Your task to perform on an android device: allow cookies in the chrome app Image 0: 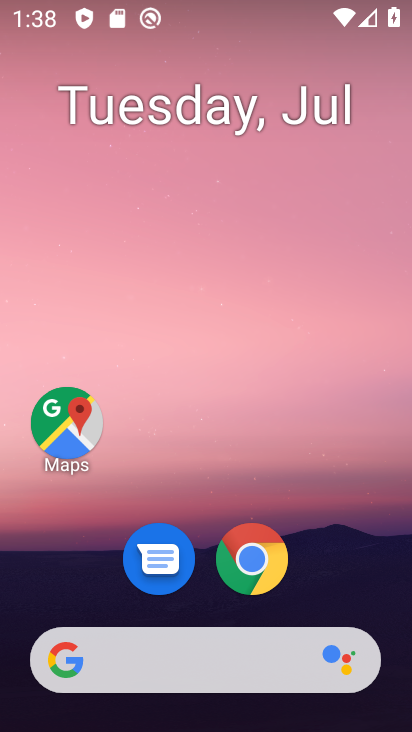
Step 0: drag from (348, 555) to (390, 82)
Your task to perform on an android device: allow cookies in the chrome app Image 1: 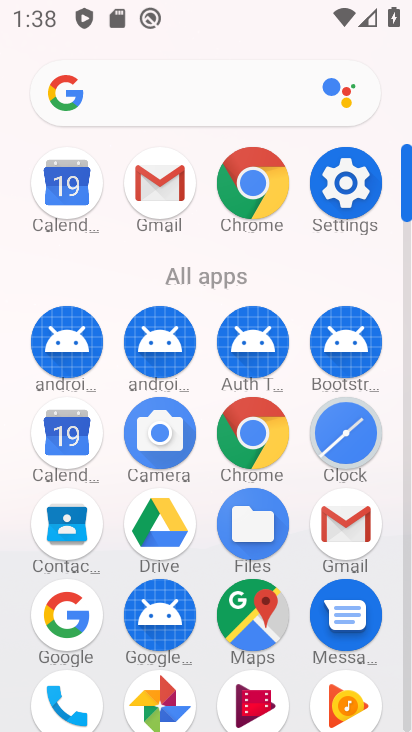
Step 1: click (251, 439)
Your task to perform on an android device: allow cookies in the chrome app Image 2: 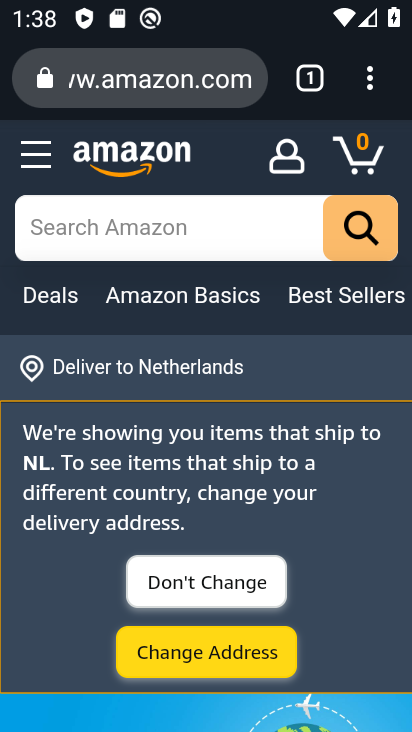
Step 2: click (369, 90)
Your task to perform on an android device: allow cookies in the chrome app Image 3: 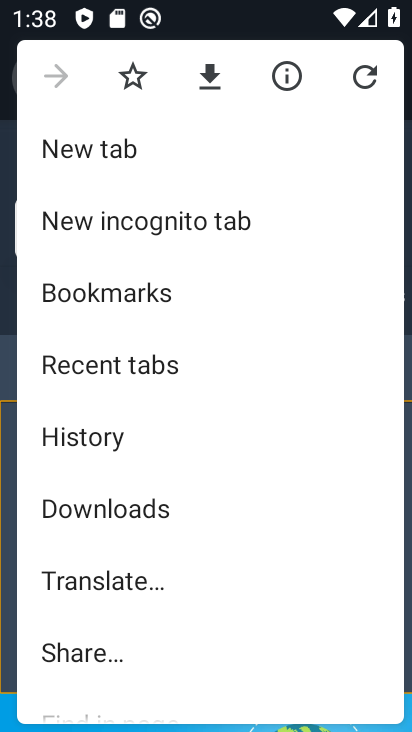
Step 3: drag from (307, 457) to (303, 364)
Your task to perform on an android device: allow cookies in the chrome app Image 4: 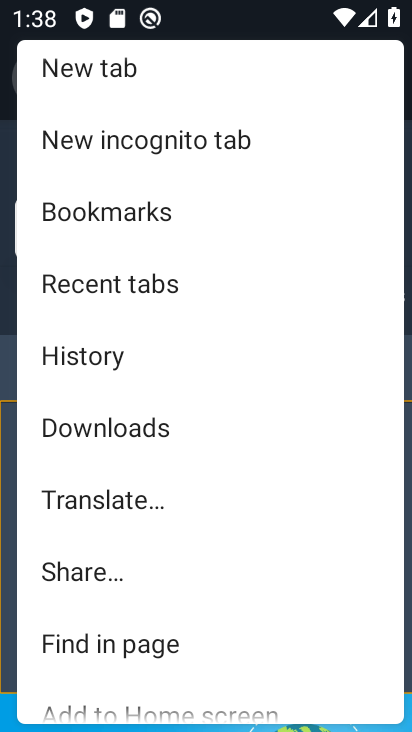
Step 4: drag from (303, 515) to (301, 394)
Your task to perform on an android device: allow cookies in the chrome app Image 5: 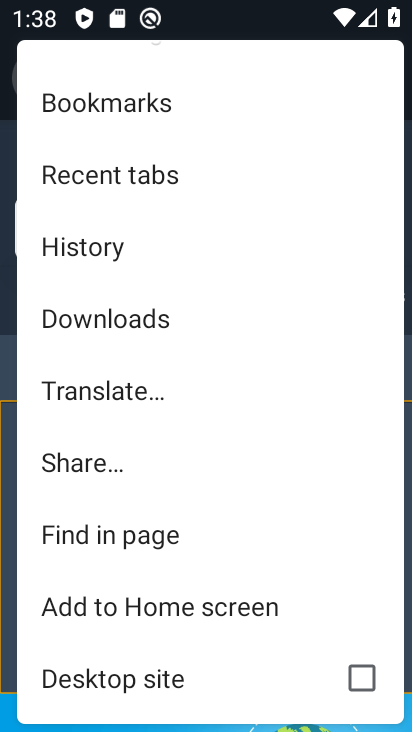
Step 5: drag from (303, 572) to (314, 436)
Your task to perform on an android device: allow cookies in the chrome app Image 6: 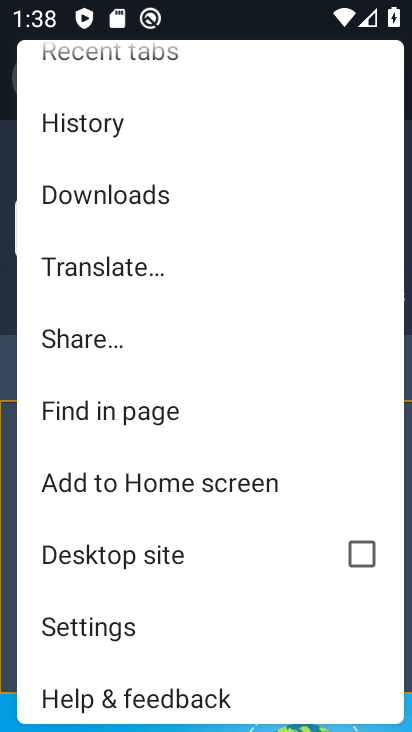
Step 6: drag from (300, 623) to (303, 495)
Your task to perform on an android device: allow cookies in the chrome app Image 7: 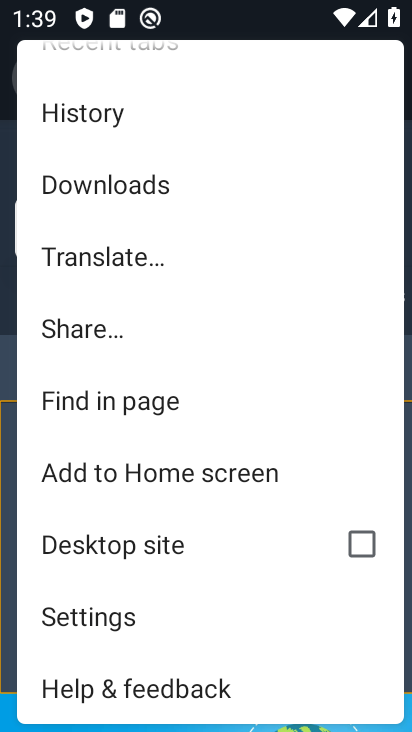
Step 7: click (172, 618)
Your task to perform on an android device: allow cookies in the chrome app Image 8: 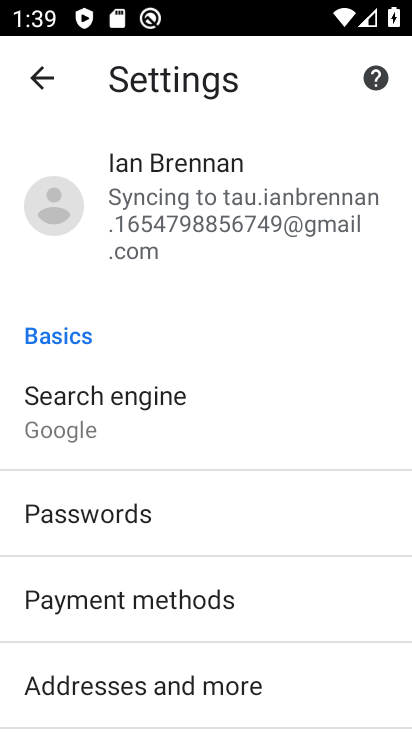
Step 8: drag from (311, 578) to (322, 397)
Your task to perform on an android device: allow cookies in the chrome app Image 9: 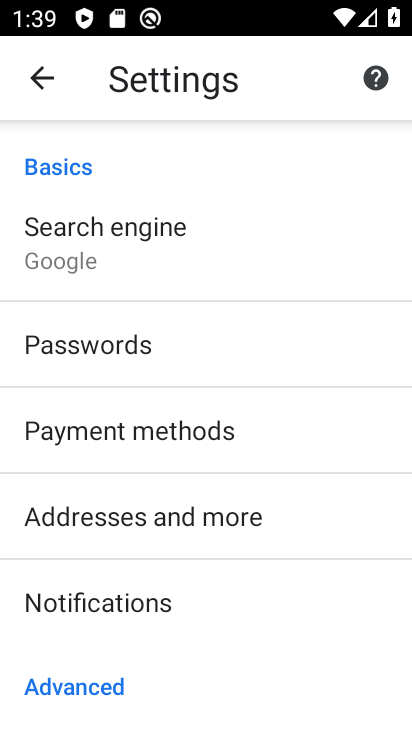
Step 9: drag from (324, 565) to (332, 396)
Your task to perform on an android device: allow cookies in the chrome app Image 10: 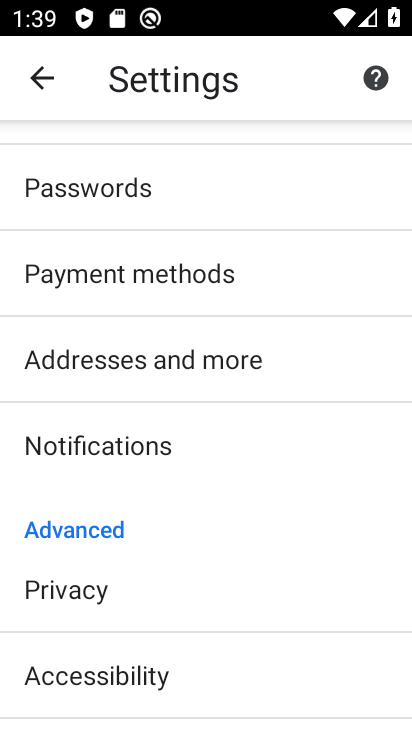
Step 10: drag from (330, 535) to (333, 377)
Your task to perform on an android device: allow cookies in the chrome app Image 11: 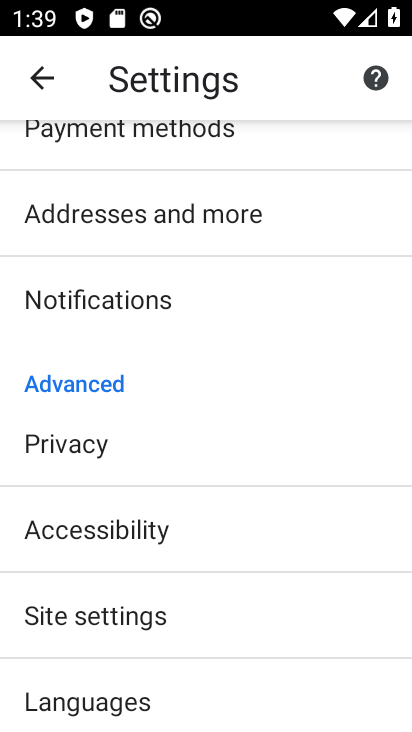
Step 11: drag from (327, 604) to (332, 390)
Your task to perform on an android device: allow cookies in the chrome app Image 12: 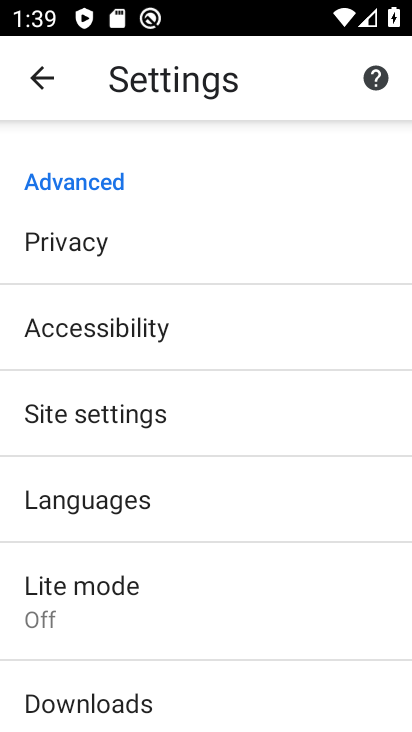
Step 12: click (241, 404)
Your task to perform on an android device: allow cookies in the chrome app Image 13: 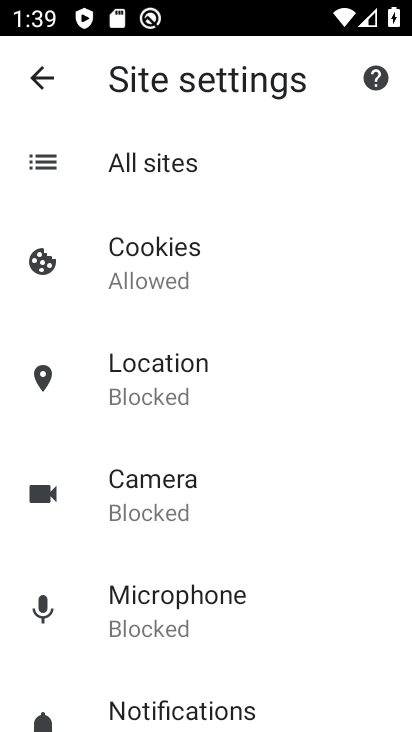
Step 13: drag from (324, 243) to (337, 380)
Your task to perform on an android device: allow cookies in the chrome app Image 14: 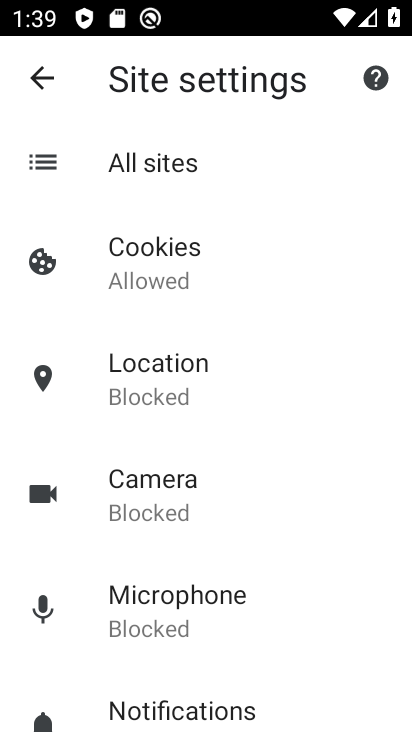
Step 14: click (224, 273)
Your task to perform on an android device: allow cookies in the chrome app Image 15: 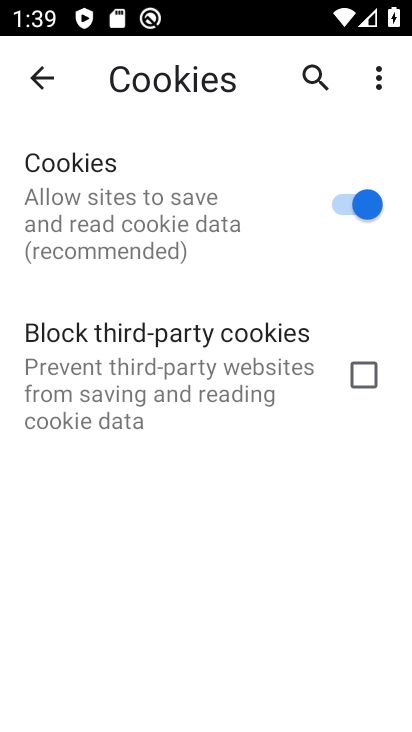
Step 15: task complete